Your task to perform on an android device: What is the recent news? Image 0: 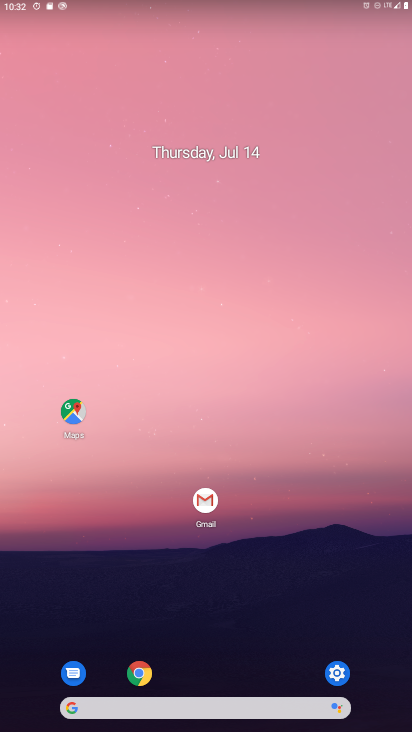
Step 0: press home button
Your task to perform on an android device: What is the recent news? Image 1: 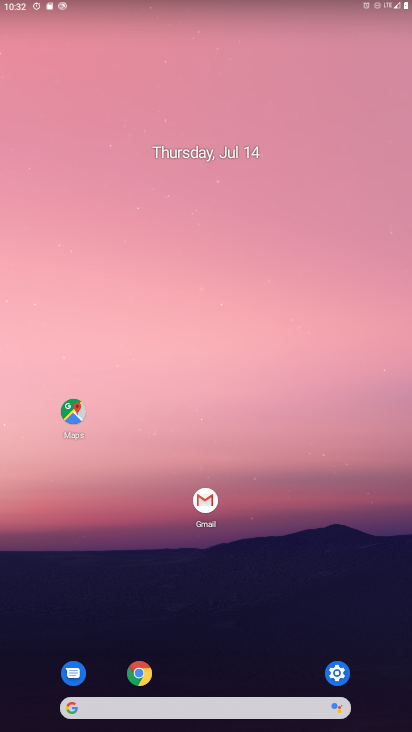
Step 1: click (209, 699)
Your task to perform on an android device: What is the recent news? Image 2: 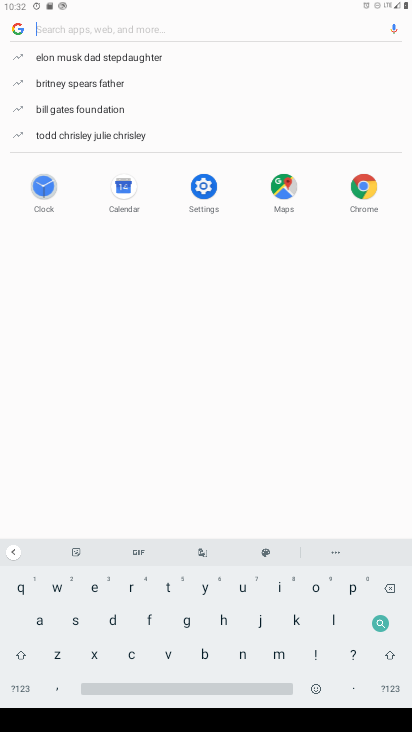
Step 2: click (132, 590)
Your task to perform on an android device: What is the recent news? Image 3: 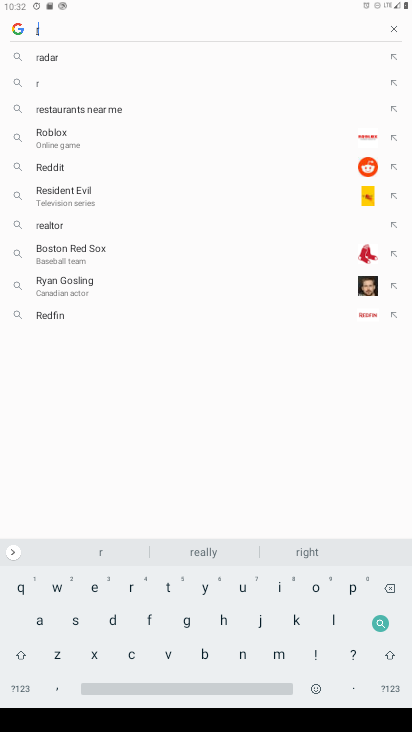
Step 3: click (94, 589)
Your task to perform on an android device: What is the recent news? Image 4: 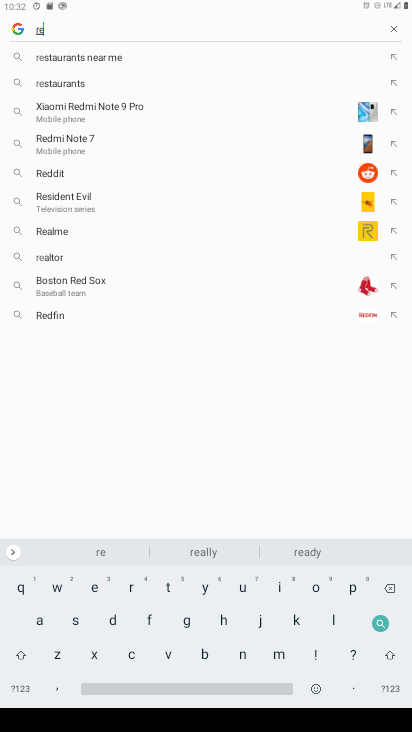
Step 4: click (128, 652)
Your task to perform on an android device: What is the recent news? Image 5: 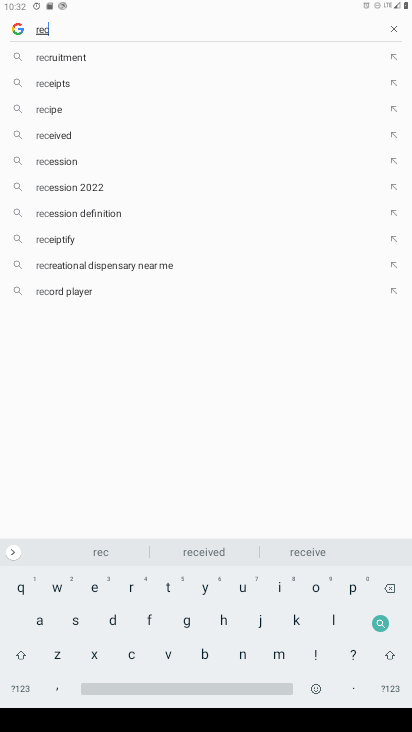
Step 5: click (90, 586)
Your task to perform on an android device: What is the recent news? Image 6: 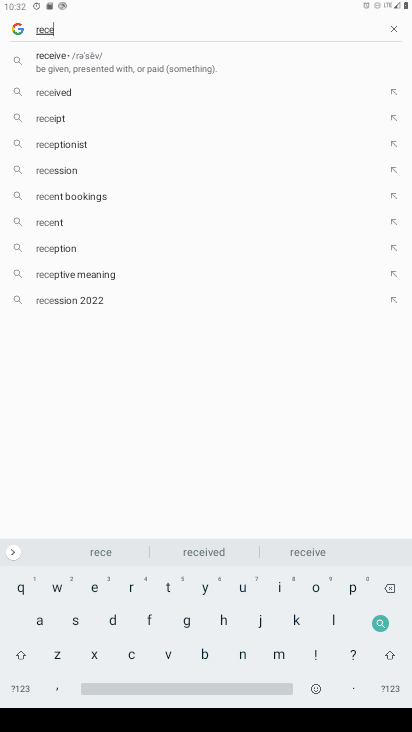
Step 6: click (238, 653)
Your task to perform on an android device: What is the recent news? Image 7: 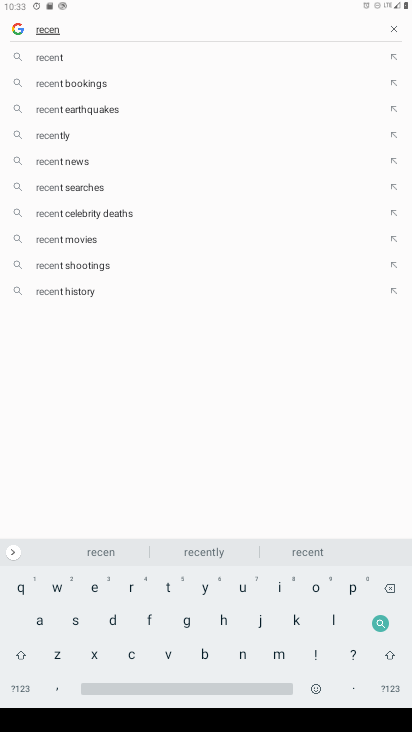
Step 7: click (305, 548)
Your task to perform on an android device: What is the recent news? Image 8: 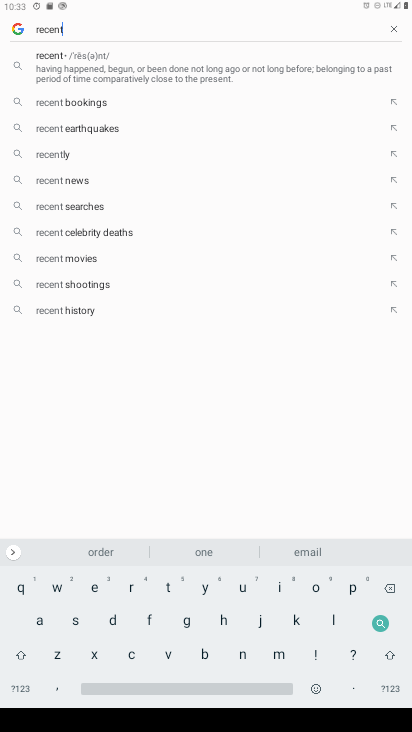
Step 8: click (62, 179)
Your task to perform on an android device: What is the recent news? Image 9: 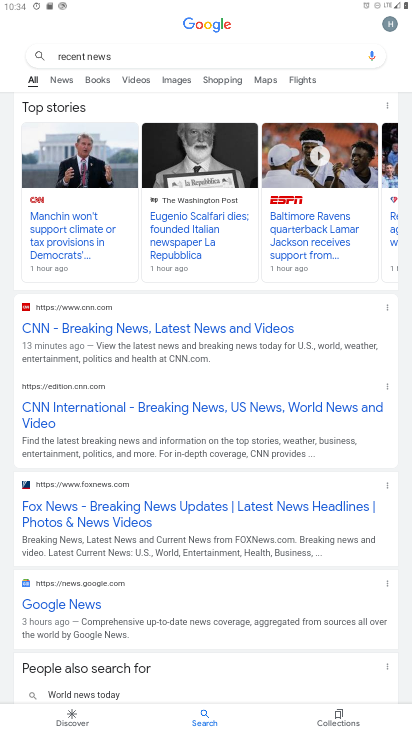
Step 9: task complete